Your task to perform on an android device: Open calendar and show me the second week of next month Image 0: 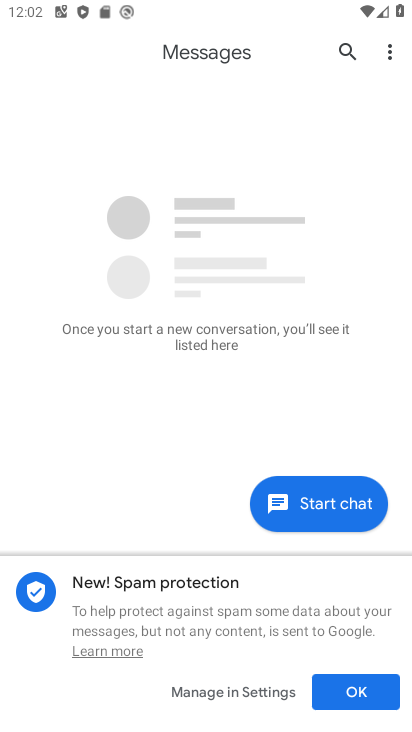
Step 0: press home button
Your task to perform on an android device: Open calendar and show me the second week of next month Image 1: 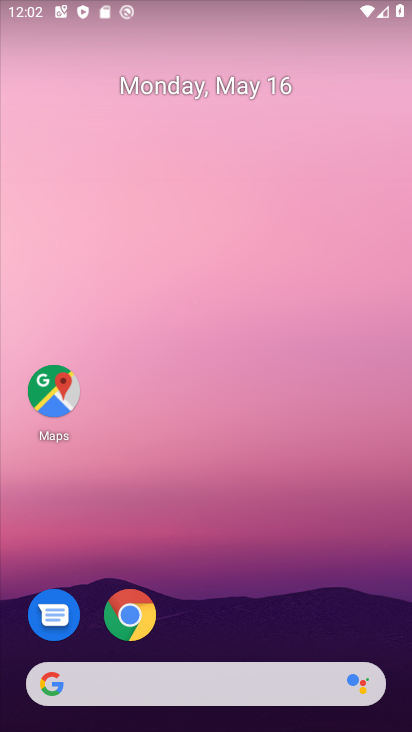
Step 1: drag from (211, 667) to (225, 33)
Your task to perform on an android device: Open calendar and show me the second week of next month Image 2: 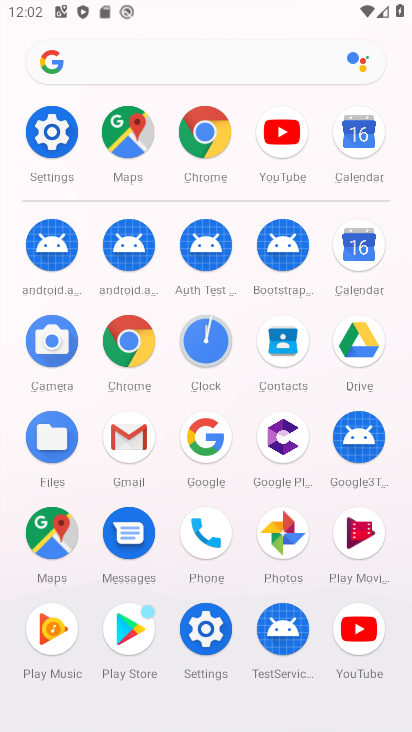
Step 2: click (338, 259)
Your task to perform on an android device: Open calendar and show me the second week of next month Image 3: 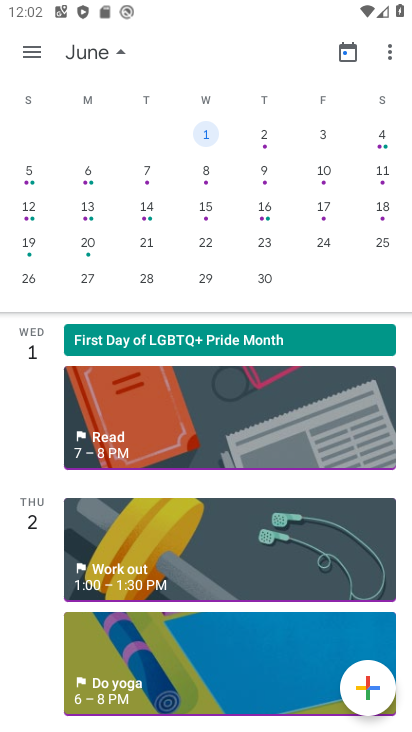
Step 3: click (259, 166)
Your task to perform on an android device: Open calendar and show me the second week of next month Image 4: 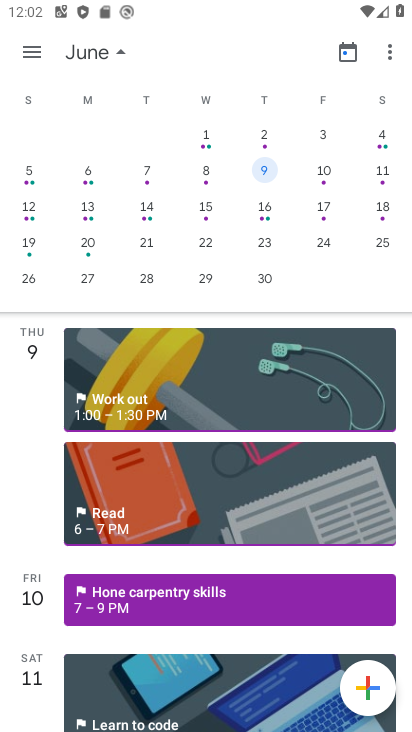
Step 4: click (26, 54)
Your task to perform on an android device: Open calendar and show me the second week of next month Image 5: 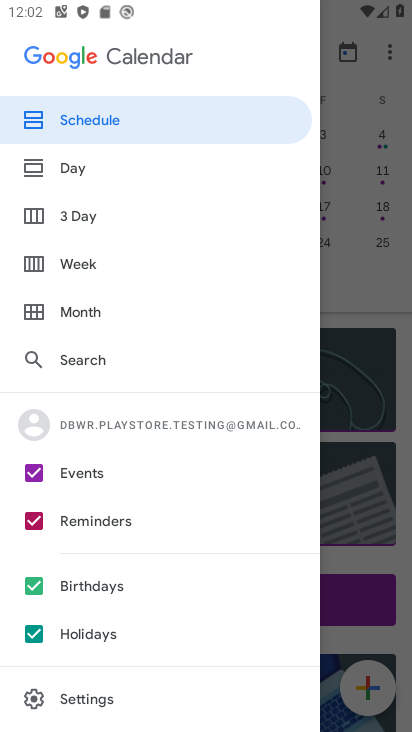
Step 5: click (120, 262)
Your task to perform on an android device: Open calendar and show me the second week of next month Image 6: 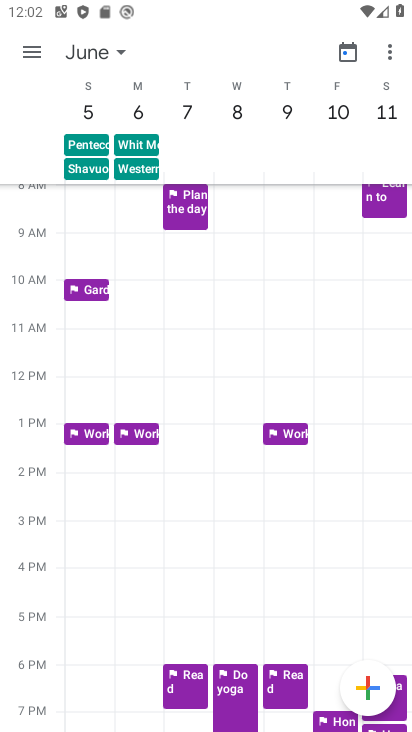
Step 6: task complete